Your task to perform on an android device: delete a single message in the gmail app Image 0: 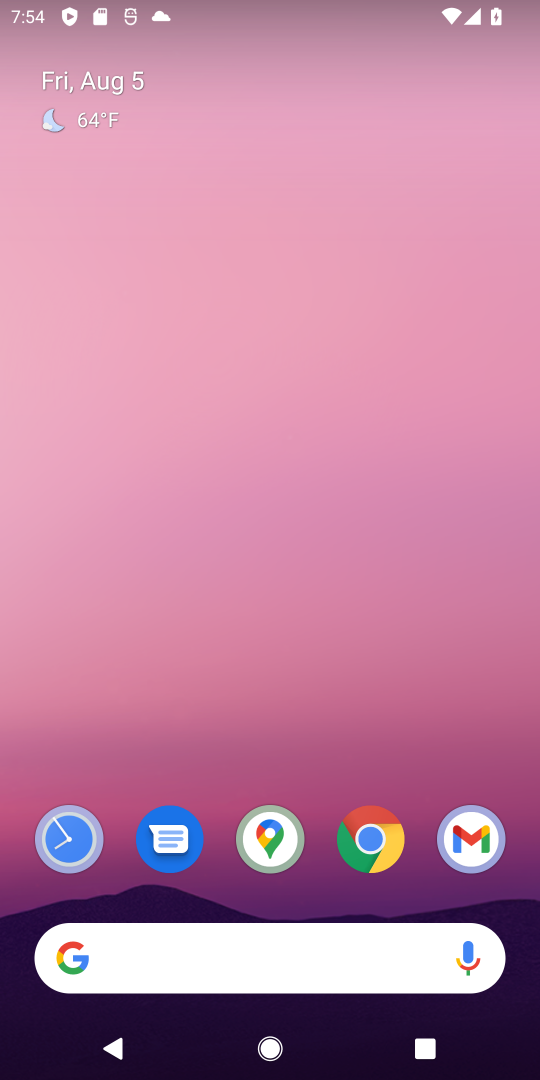
Step 0: drag from (301, 866) to (303, 79)
Your task to perform on an android device: delete a single message in the gmail app Image 1: 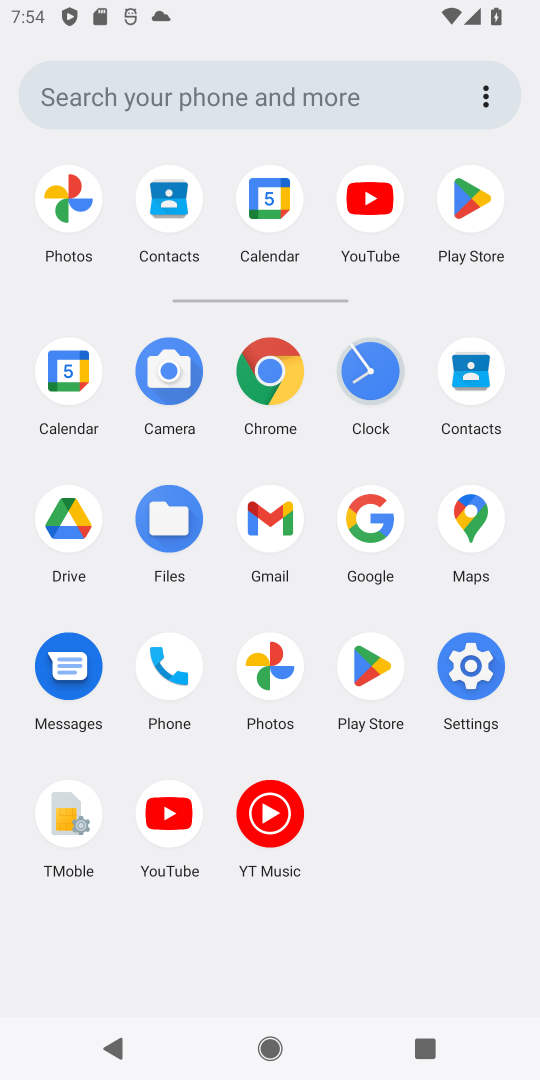
Step 1: click (266, 530)
Your task to perform on an android device: delete a single message in the gmail app Image 2: 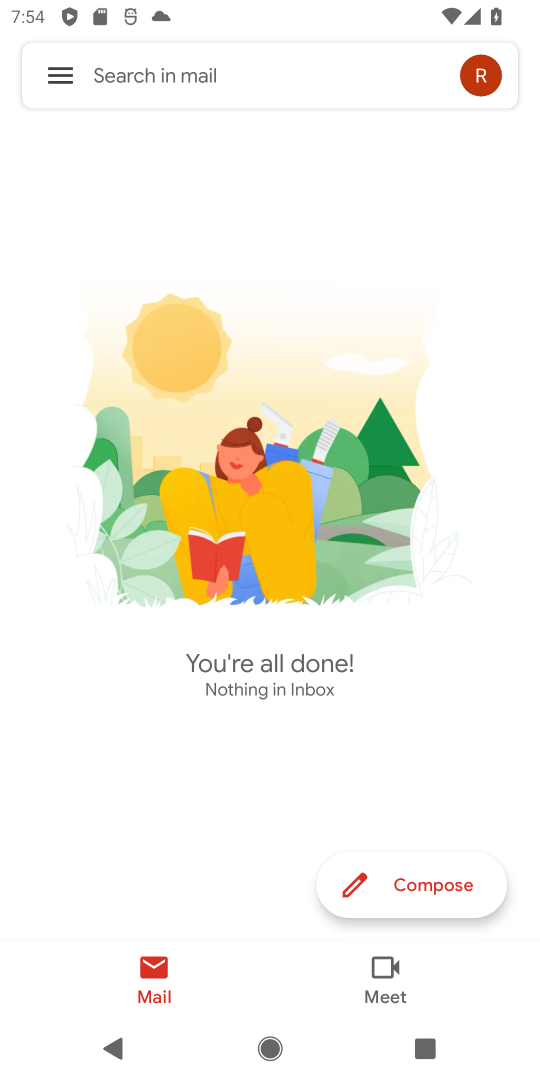
Step 2: task complete